Your task to perform on an android device: Open network settings Image 0: 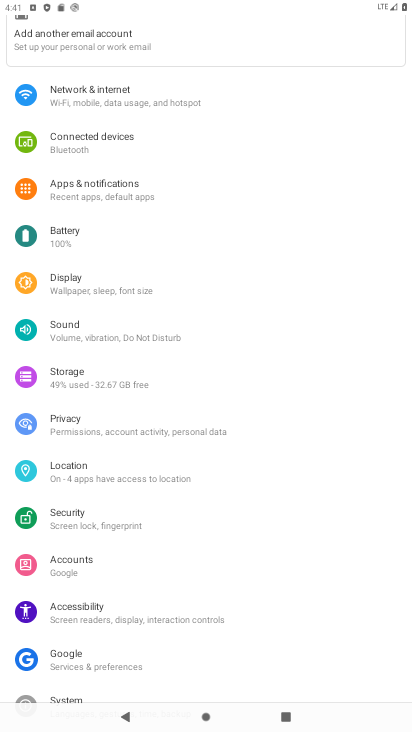
Step 0: click (207, 102)
Your task to perform on an android device: Open network settings Image 1: 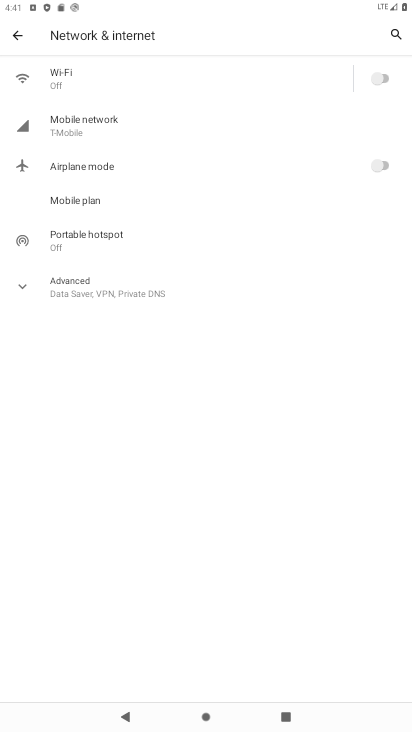
Step 1: task complete